Your task to perform on an android device: Go to wifi settings Image 0: 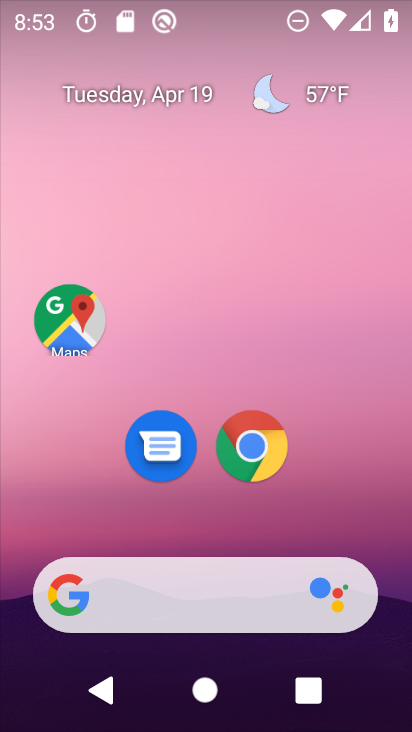
Step 0: press home button
Your task to perform on an android device: Go to wifi settings Image 1: 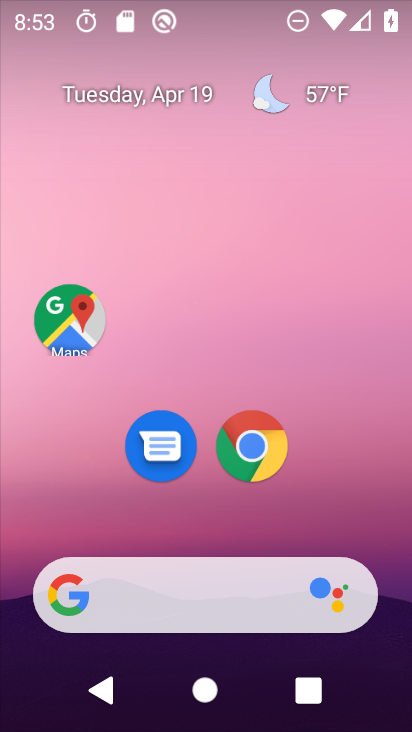
Step 1: drag from (307, 441) to (261, 119)
Your task to perform on an android device: Go to wifi settings Image 2: 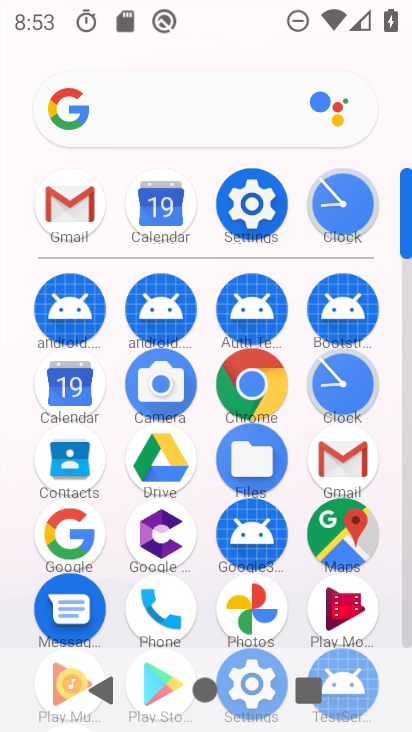
Step 2: click (249, 217)
Your task to perform on an android device: Go to wifi settings Image 3: 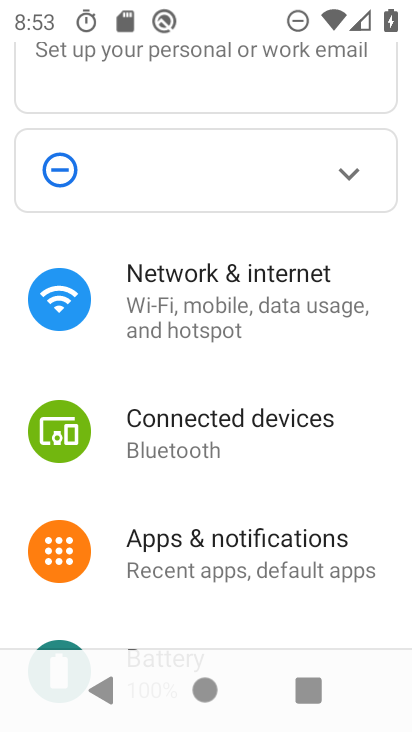
Step 3: click (200, 320)
Your task to perform on an android device: Go to wifi settings Image 4: 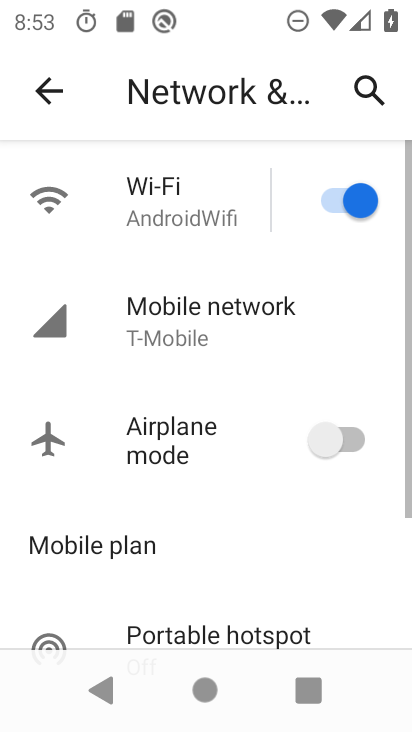
Step 4: click (182, 210)
Your task to perform on an android device: Go to wifi settings Image 5: 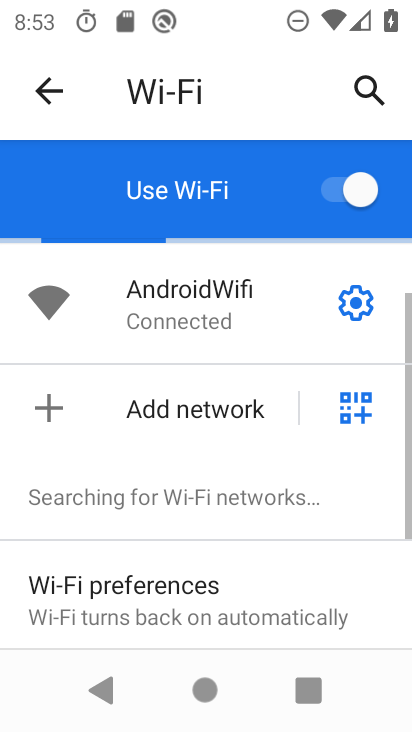
Step 5: task complete